Your task to perform on an android device: Open sound settings Image 0: 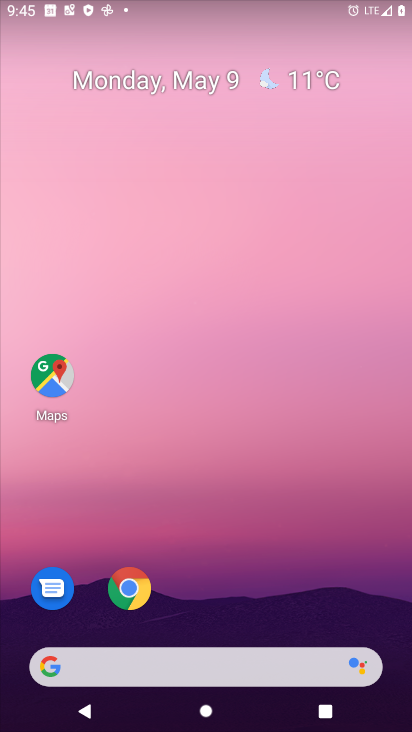
Step 0: drag from (344, 606) to (266, 71)
Your task to perform on an android device: Open sound settings Image 1: 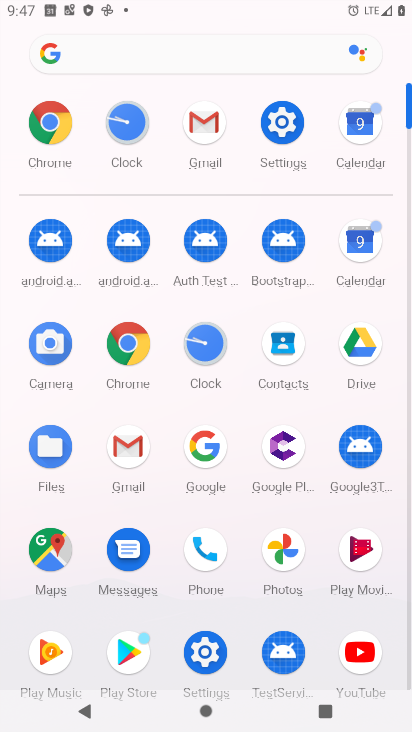
Step 1: click (201, 657)
Your task to perform on an android device: Open sound settings Image 2: 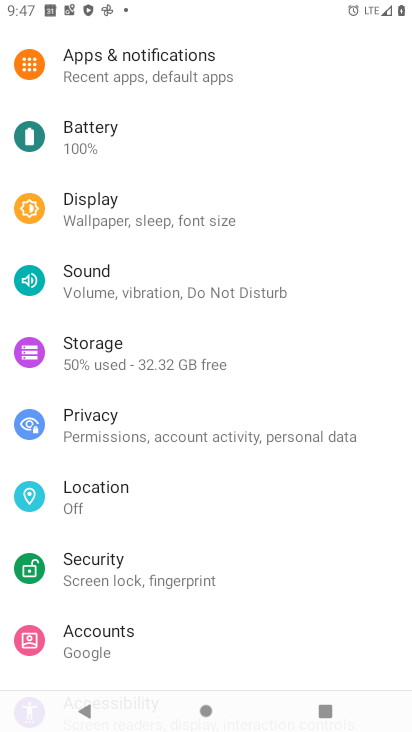
Step 2: click (153, 277)
Your task to perform on an android device: Open sound settings Image 3: 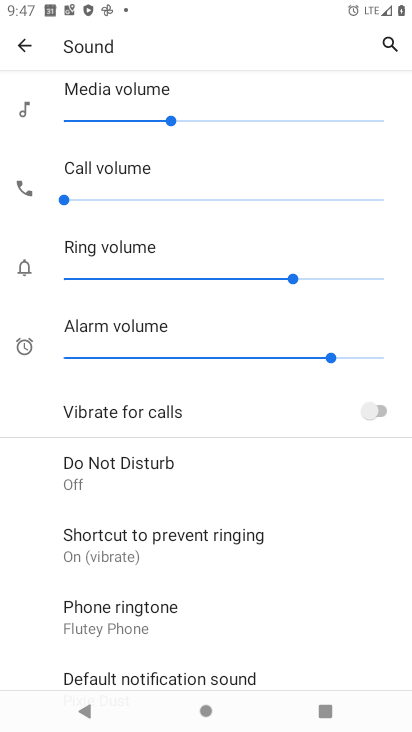
Step 3: task complete